Your task to perform on an android device: visit the assistant section in the google photos Image 0: 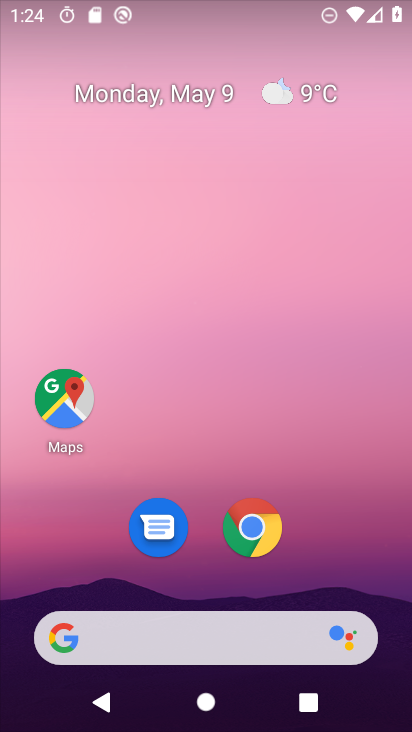
Step 0: drag from (204, 639) to (253, 206)
Your task to perform on an android device: visit the assistant section in the google photos Image 1: 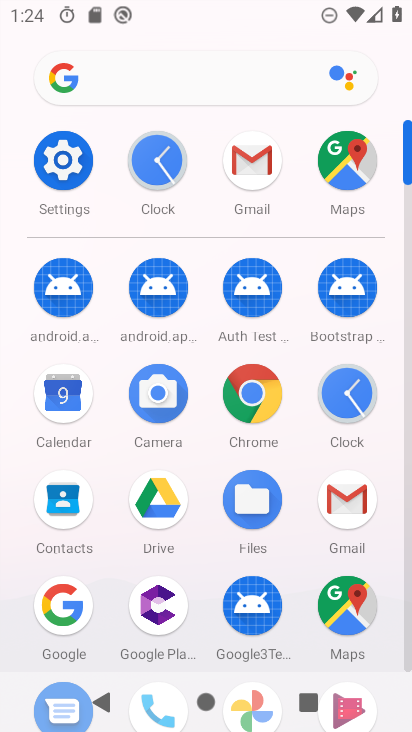
Step 1: drag from (242, 674) to (269, 277)
Your task to perform on an android device: visit the assistant section in the google photos Image 2: 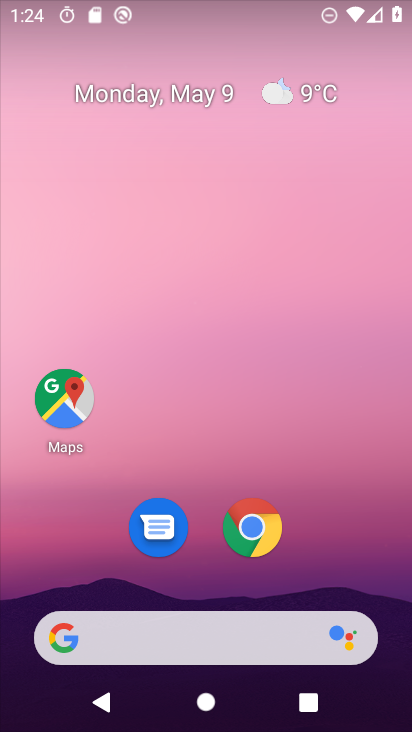
Step 2: drag from (173, 626) to (248, 106)
Your task to perform on an android device: visit the assistant section in the google photos Image 3: 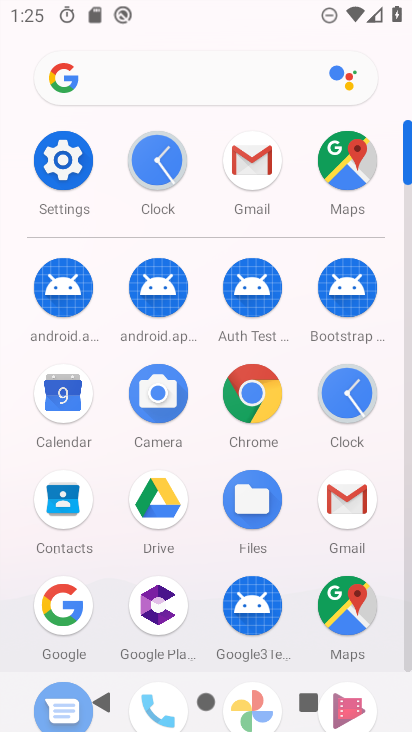
Step 3: drag from (222, 572) to (281, 132)
Your task to perform on an android device: visit the assistant section in the google photos Image 4: 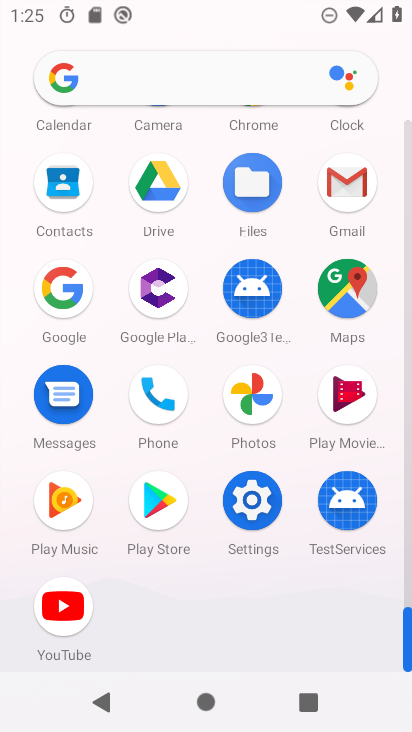
Step 4: click (248, 393)
Your task to perform on an android device: visit the assistant section in the google photos Image 5: 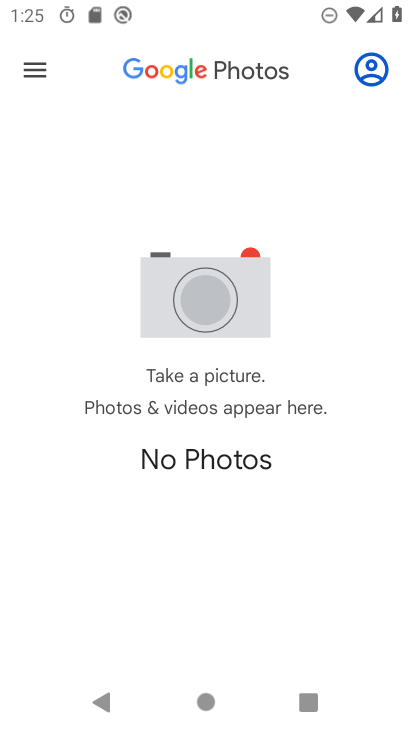
Step 5: click (16, 64)
Your task to perform on an android device: visit the assistant section in the google photos Image 6: 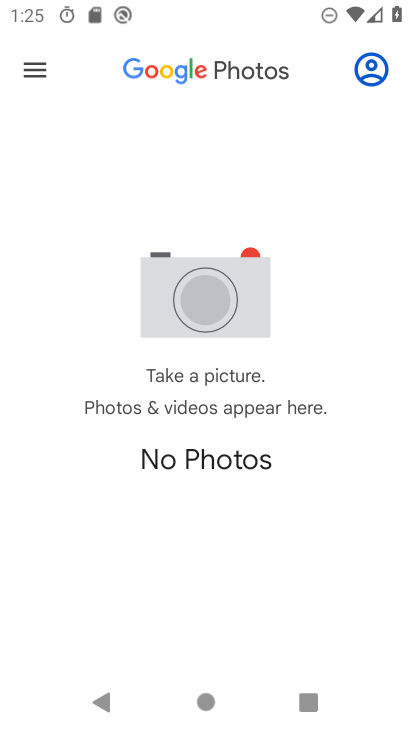
Step 6: click (41, 73)
Your task to perform on an android device: visit the assistant section in the google photos Image 7: 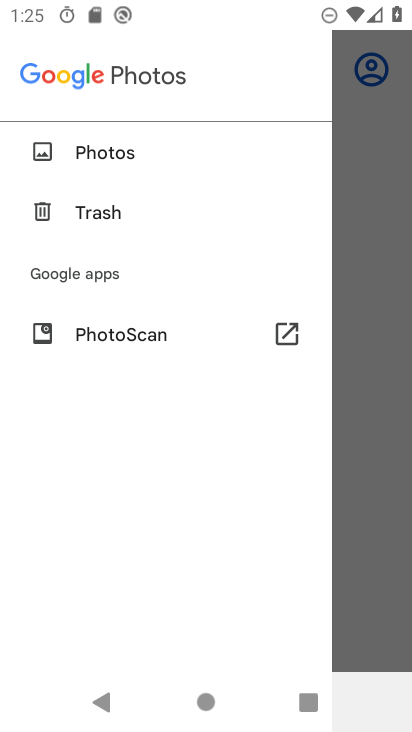
Step 7: task complete